Your task to perform on an android device: Check the news Image 0: 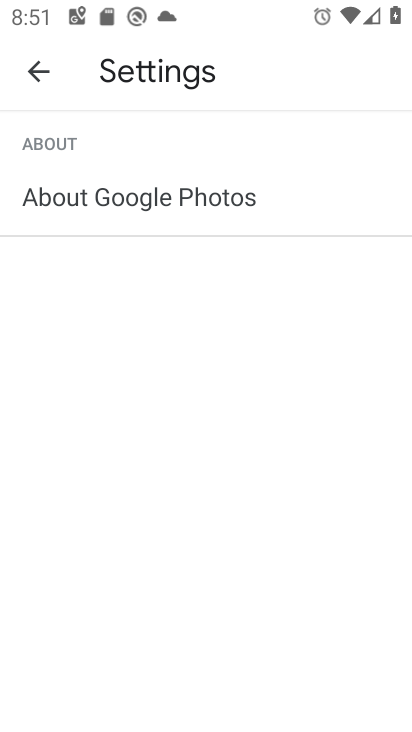
Step 0: press home button
Your task to perform on an android device: Check the news Image 1: 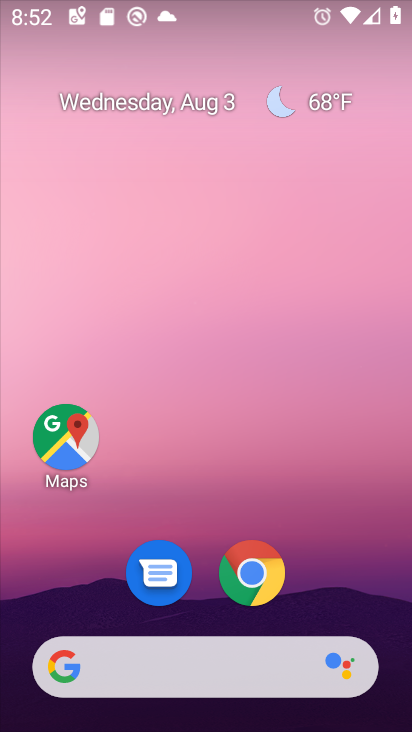
Step 1: click (154, 662)
Your task to perform on an android device: Check the news Image 2: 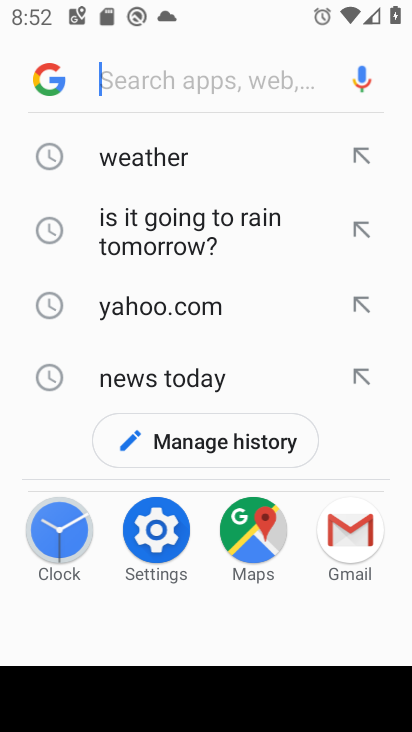
Step 2: type "news"
Your task to perform on an android device: Check the news Image 3: 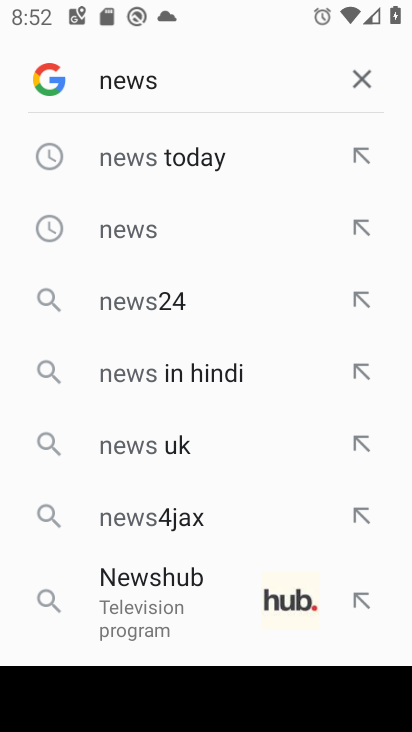
Step 3: click (137, 232)
Your task to perform on an android device: Check the news Image 4: 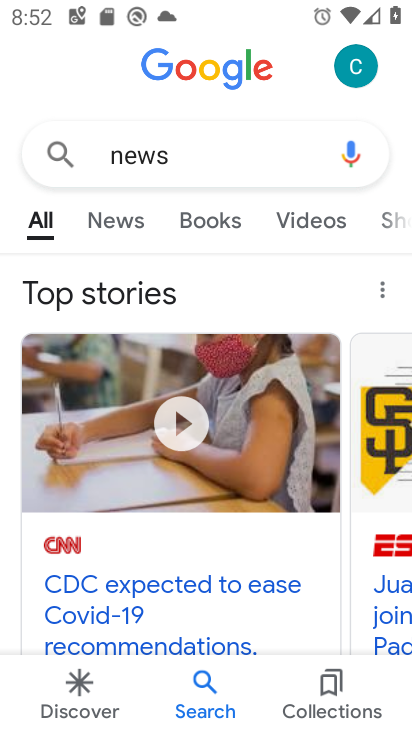
Step 4: click (101, 233)
Your task to perform on an android device: Check the news Image 5: 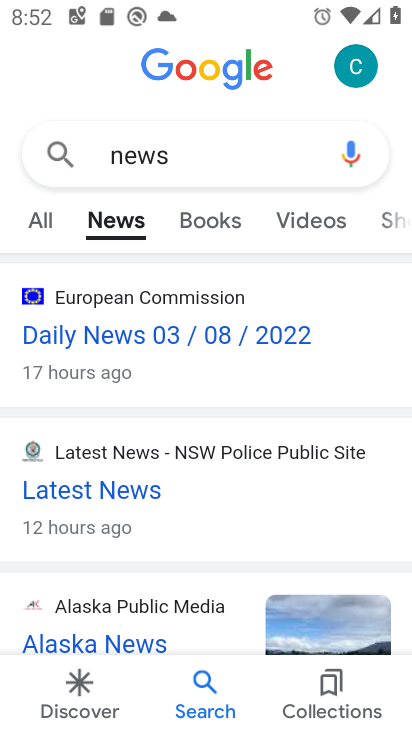
Step 5: task complete